Your task to perform on an android device: Open Chrome and go to the settings page Image 0: 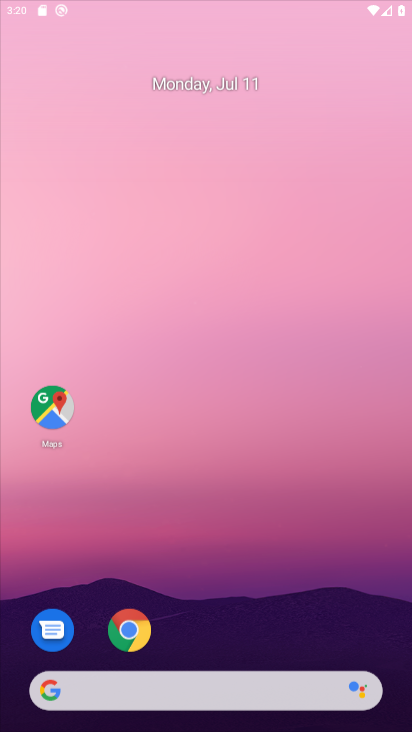
Step 0: click (193, 197)
Your task to perform on an android device: Open Chrome and go to the settings page Image 1: 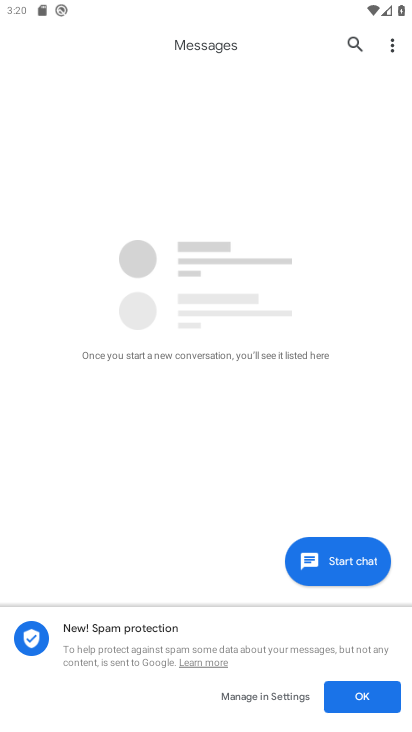
Step 1: press home button
Your task to perform on an android device: Open Chrome and go to the settings page Image 2: 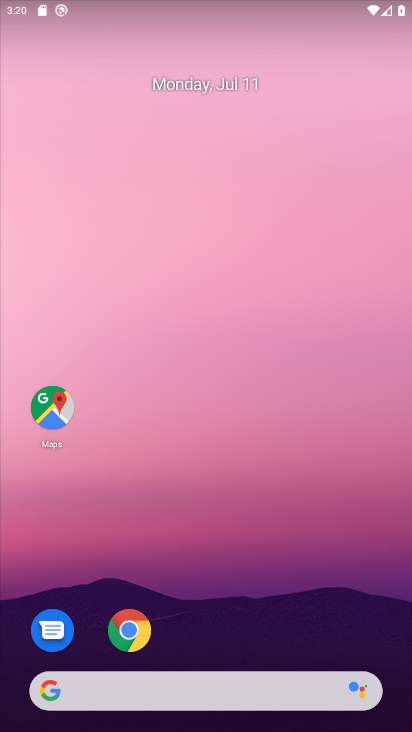
Step 2: click (116, 626)
Your task to perform on an android device: Open Chrome and go to the settings page Image 3: 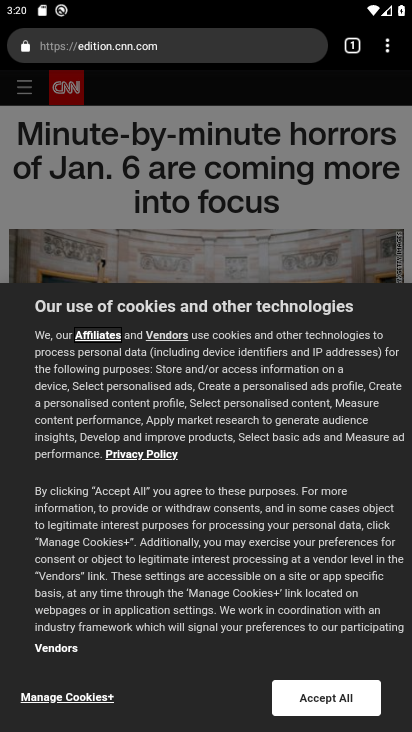
Step 3: click (382, 55)
Your task to perform on an android device: Open Chrome and go to the settings page Image 4: 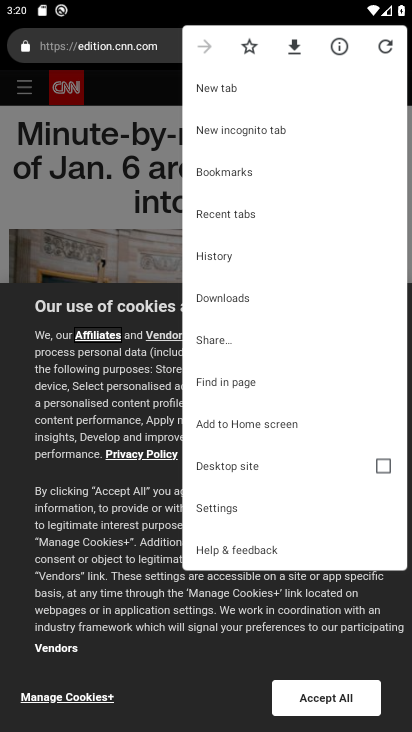
Step 4: click (276, 507)
Your task to perform on an android device: Open Chrome and go to the settings page Image 5: 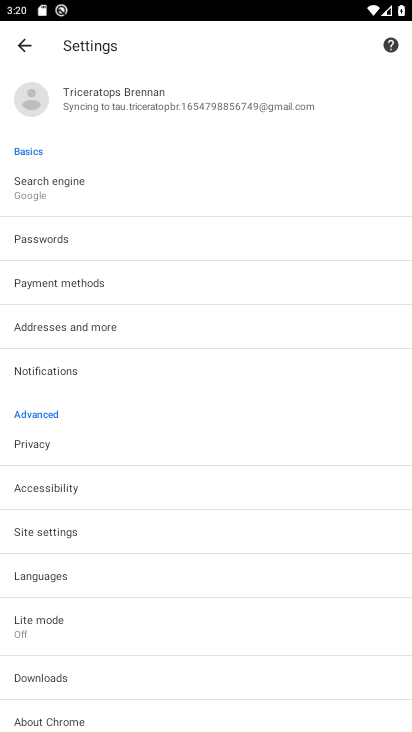
Step 5: task complete